Your task to perform on an android device: What is the news today? Image 0: 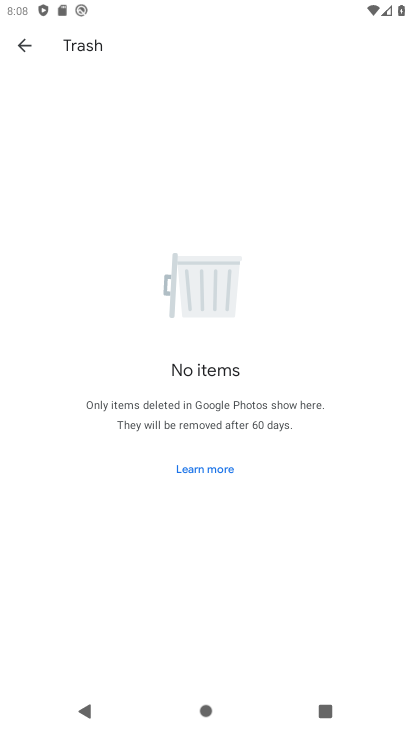
Step 0: press home button
Your task to perform on an android device: What is the news today? Image 1: 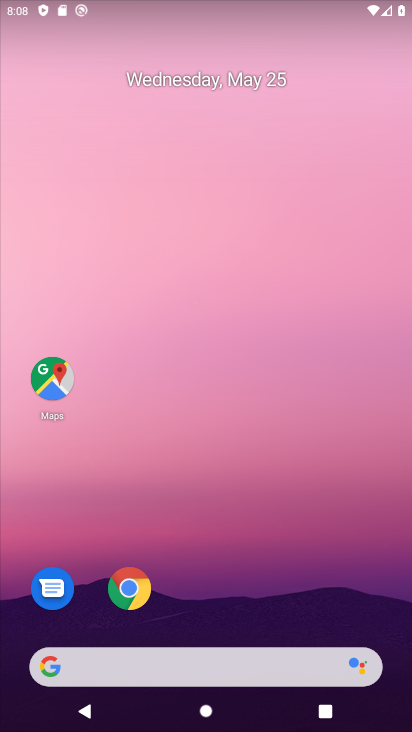
Step 1: click (158, 670)
Your task to perform on an android device: What is the news today? Image 2: 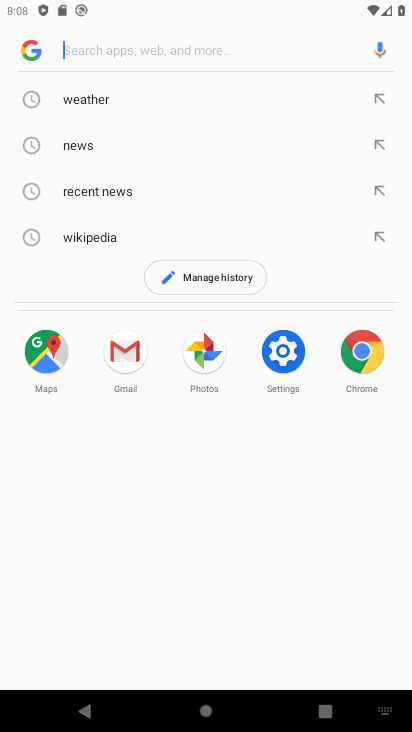
Step 2: click (87, 146)
Your task to perform on an android device: What is the news today? Image 3: 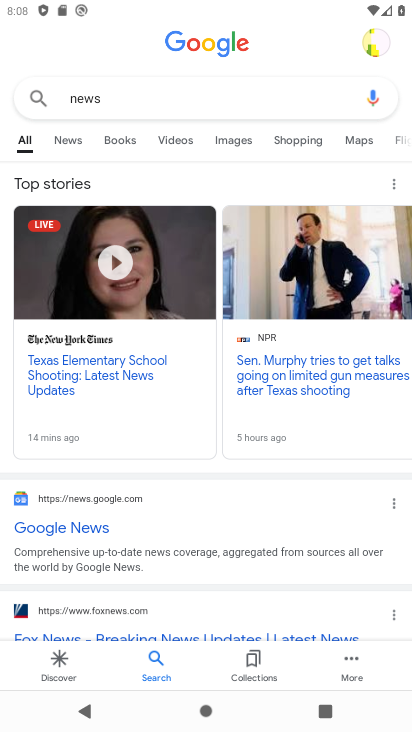
Step 3: task complete